Your task to perform on an android device: Turn on the flashlight Image 0: 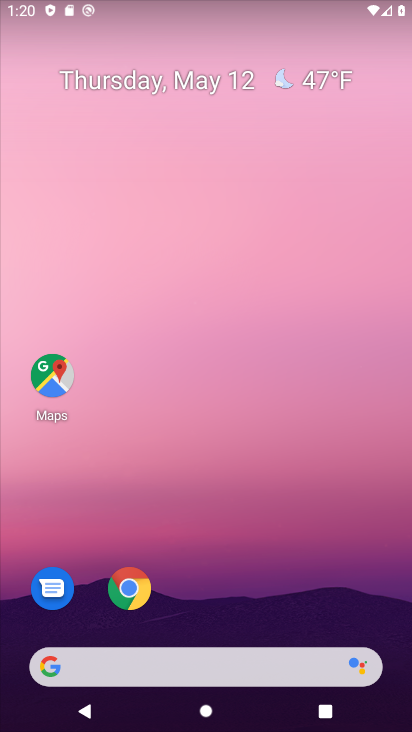
Step 0: drag from (395, 631) to (285, 5)
Your task to perform on an android device: Turn on the flashlight Image 1: 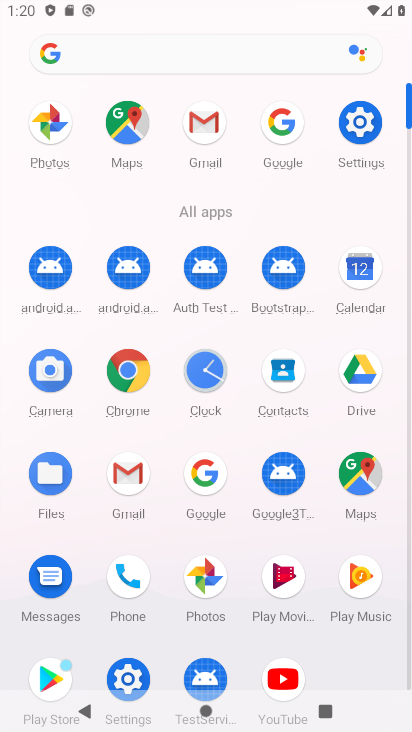
Step 1: click (406, 144)
Your task to perform on an android device: Turn on the flashlight Image 2: 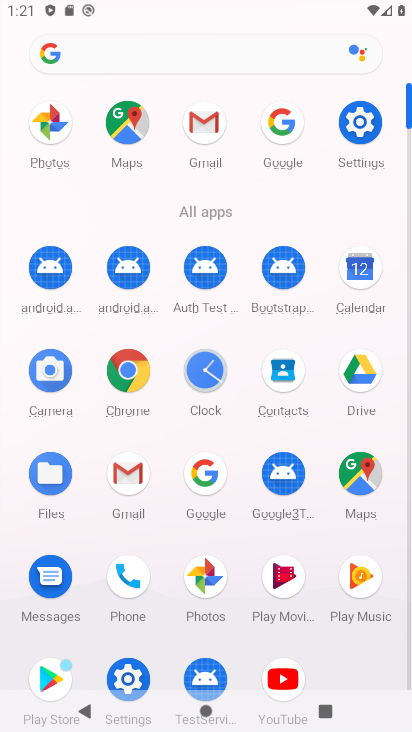
Step 2: click (370, 132)
Your task to perform on an android device: Turn on the flashlight Image 3: 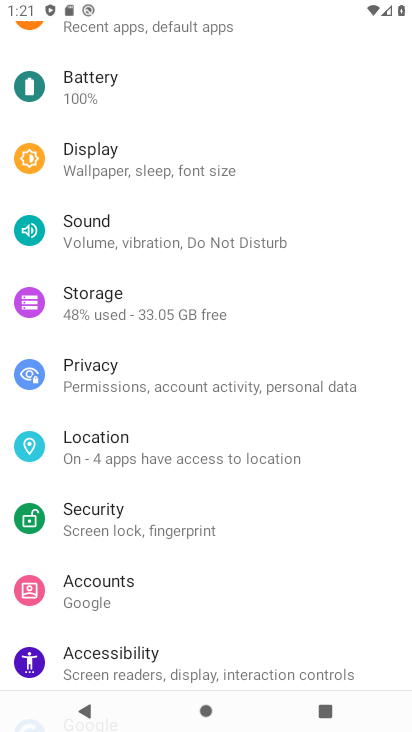
Step 3: task complete